Your task to perform on an android device: make emails show in primary in the gmail app Image 0: 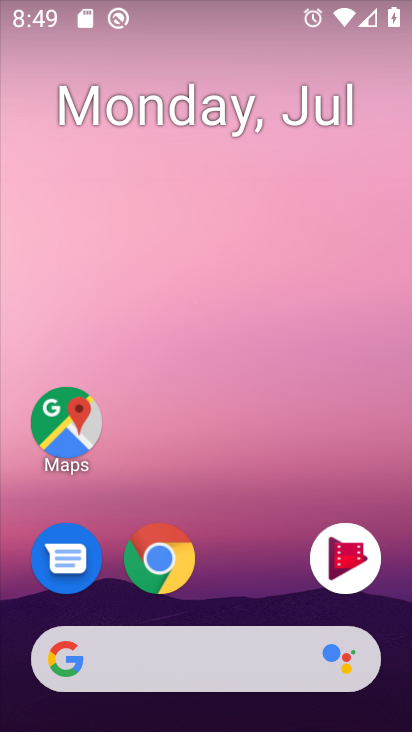
Step 0: drag from (261, 575) to (281, 130)
Your task to perform on an android device: make emails show in primary in the gmail app Image 1: 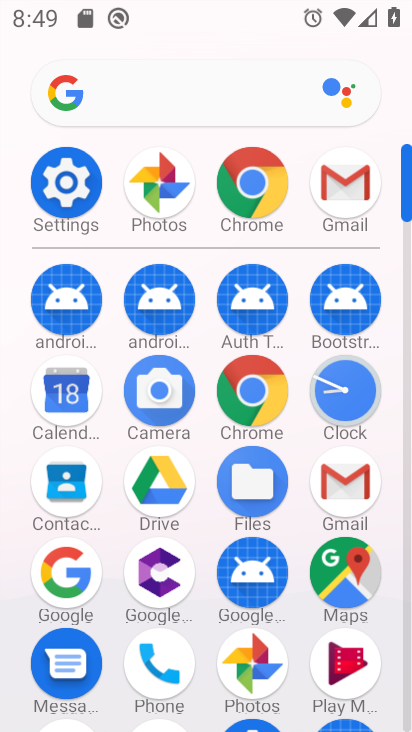
Step 1: click (354, 479)
Your task to perform on an android device: make emails show in primary in the gmail app Image 2: 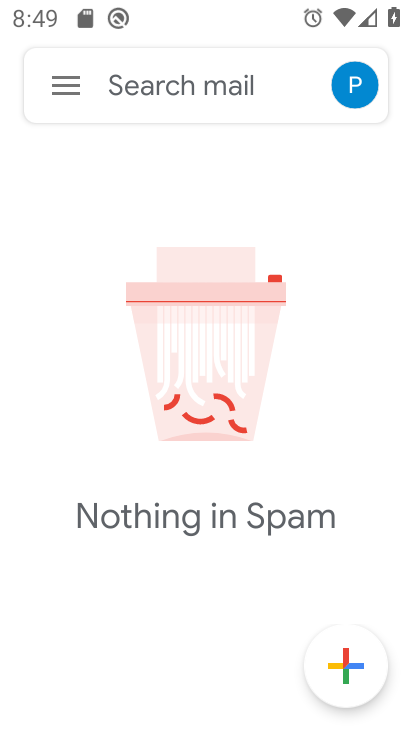
Step 2: click (66, 87)
Your task to perform on an android device: make emails show in primary in the gmail app Image 3: 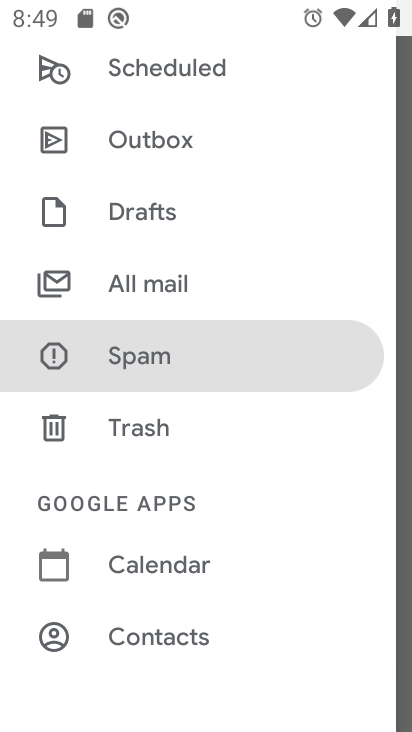
Step 3: drag from (287, 251) to (294, 304)
Your task to perform on an android device: make emails show in primary in the gmail app Image 4: 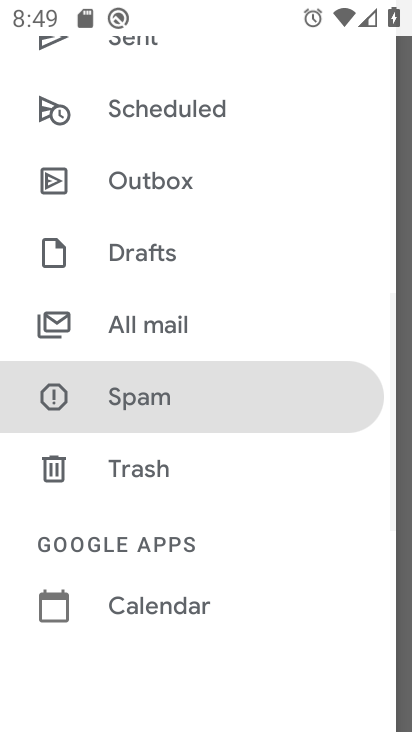
Step 4: drag from (305, 191) to (307, 302)
Your task to perform on an android device: make emails show in primary in the gmail app Image 5: 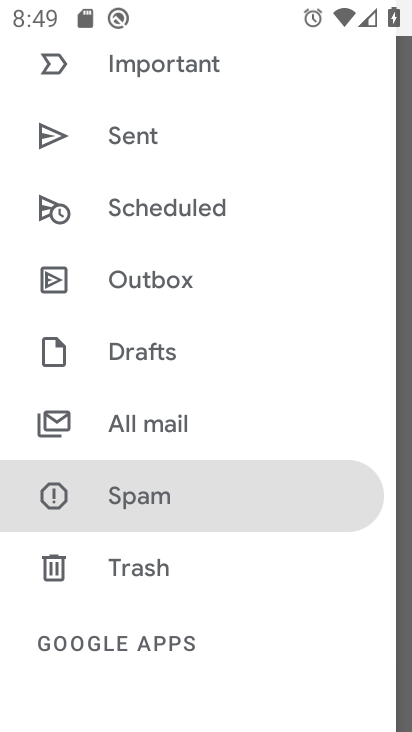
Step 5: drag from (300, 180) to (320, 324)
Your task to perform on an android device: make emails show in primary in the gmail app Image 6: 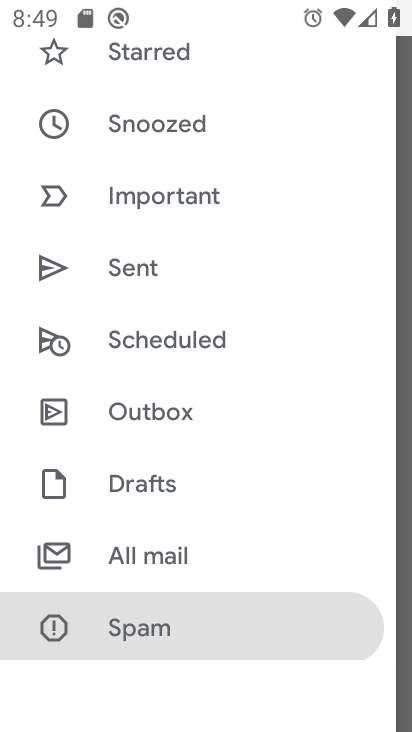
Step 6: drag from (300, 125) to (304, 271)
Your task to perform on an android device: make emails show in primary in the gmail app Image 7: 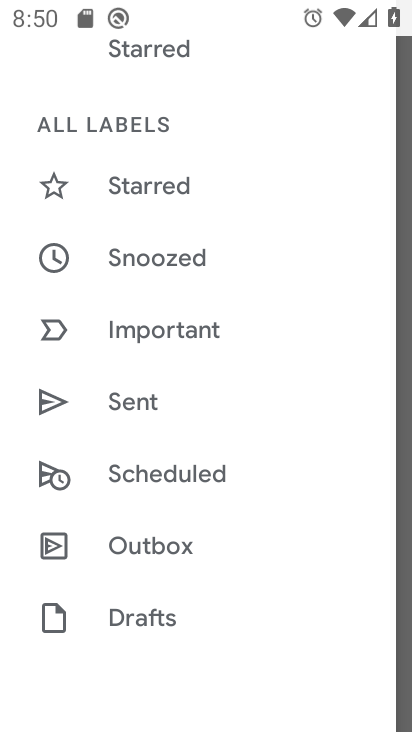
Step 7: drag from (300, 123) to (314, 279)
Your task to perform on an android device: make emails show in primary in the gmail app Image 8: 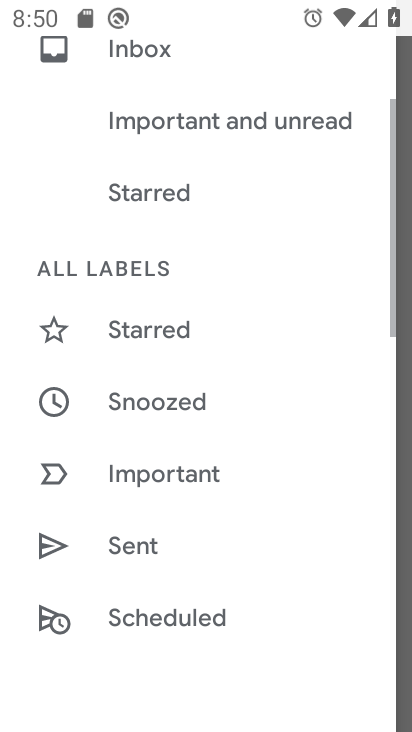
Step 8: drag from (311, 321) to (321, 228)
Your task to perform on an android device: make emails show in primary in the gmail app Image 9: 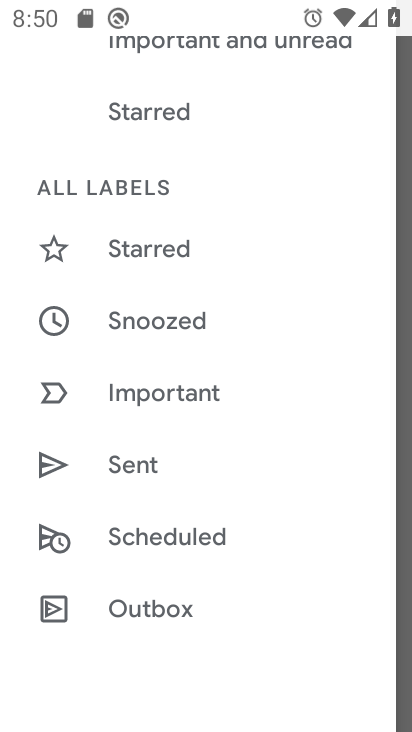
Step 9: drag from (315, 372) to (315, 186)
Your task to perform on an android device: make emails show in primary in the gmail app Image 10: 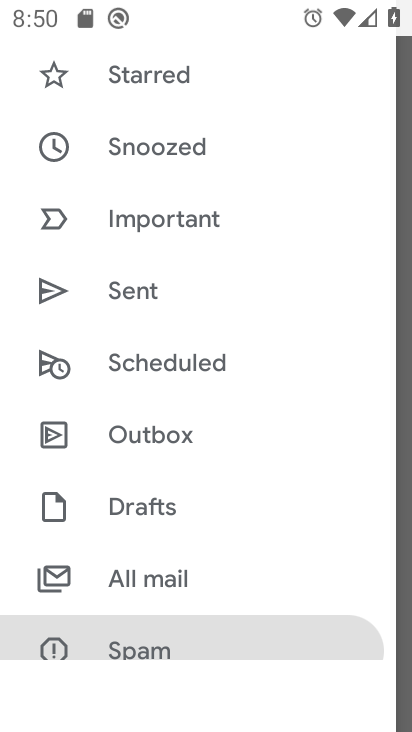
Step 10: drag from (294, 351) to (299, 219)
Your task to perform on an android device: make emails show in primary in the gmail app Image 11: 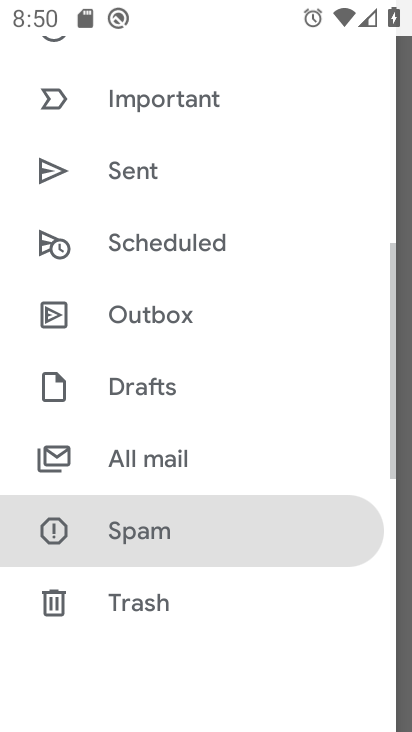
Step 11: drag from (303, 395) to (303, 279)
Your task to perform on an android device: make emails show in primary in the gmail app Image 12: 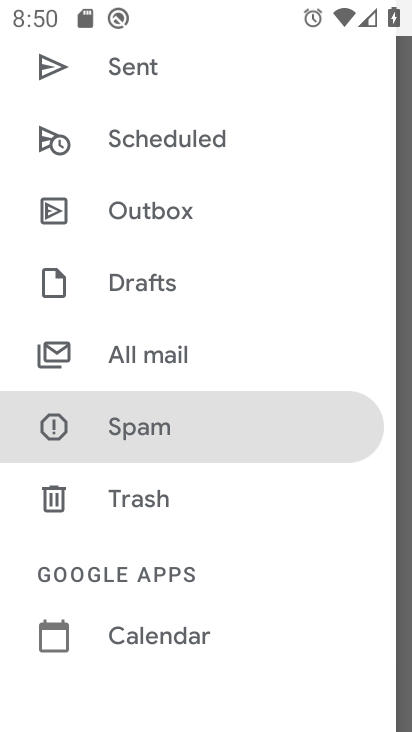
Step 12: drag from (285, 555) to (304, 408)
Your task to perform on an android device: make emails show in primary in the gmail app Image 13: 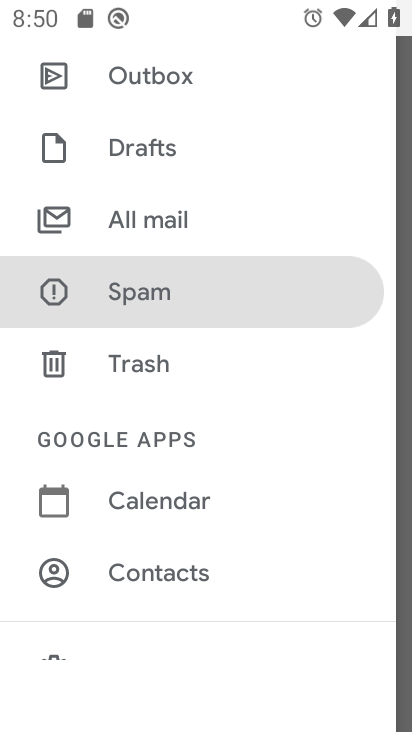
Step 13: drag from (282, 538) to (299, 416)
Your task to perform on an android device: make emails show in primary in the gmail app Image 14: 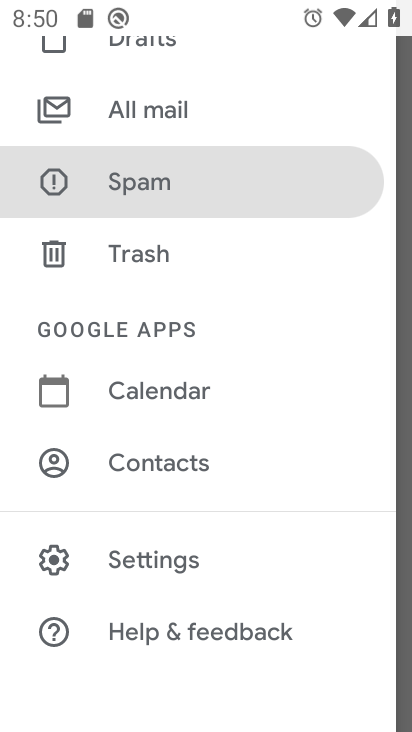
Step 14: click (221, 555)
Your task to perform on an android device: make emails show in primary in the gmail app Image 15: 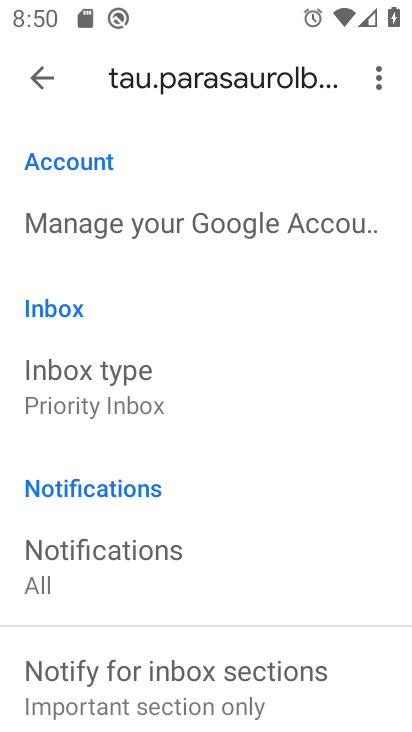
Step 15: drag from (266, 543) to (275, 437)
Your task to perform on an android device: make emails show in primary in the gmail app Image 16: 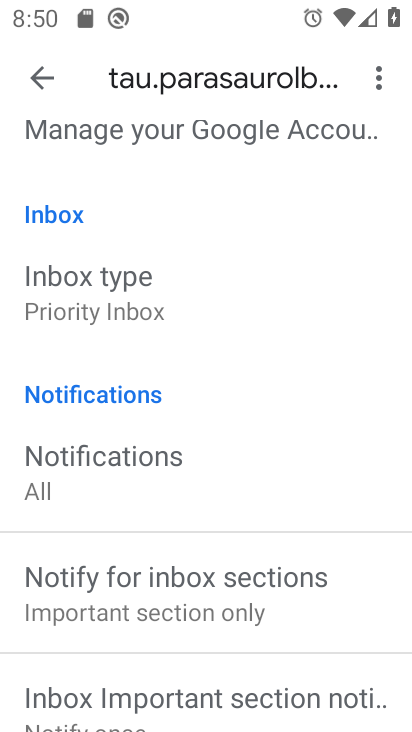
Step 16: drag from (293, 582) to (296, 474)
Your task to perform on an android device: make emails show in primary in the gmail app Image 17: 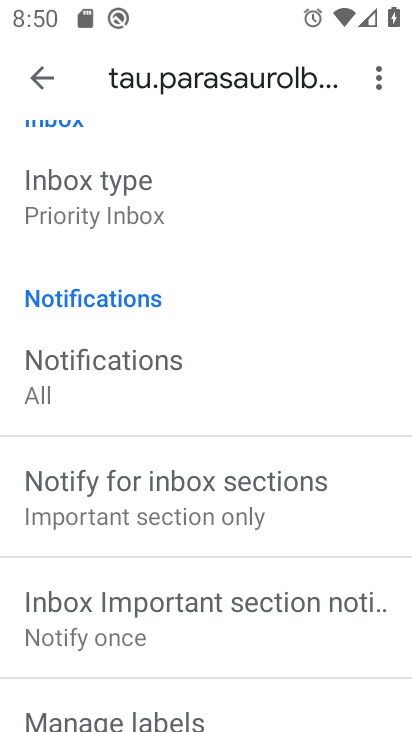
Step 17: click (171, 205)
Your task to perform on an android device: make emails show in primary in the gmail app Image 18: 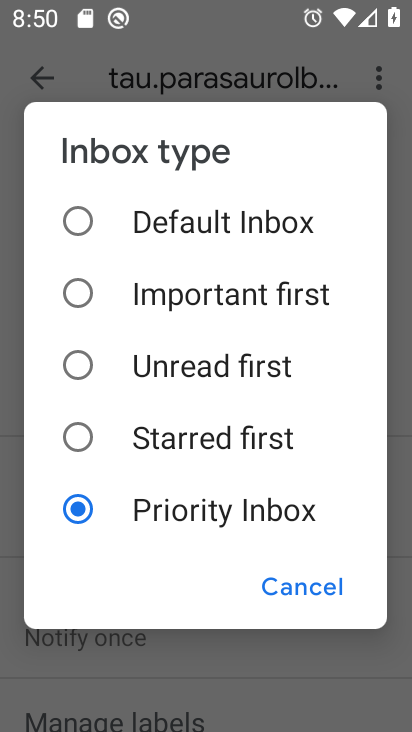
Step 18: click (159, 227)
Your task to perform on an android device: make emails show in primary in the gmail app Image 19: 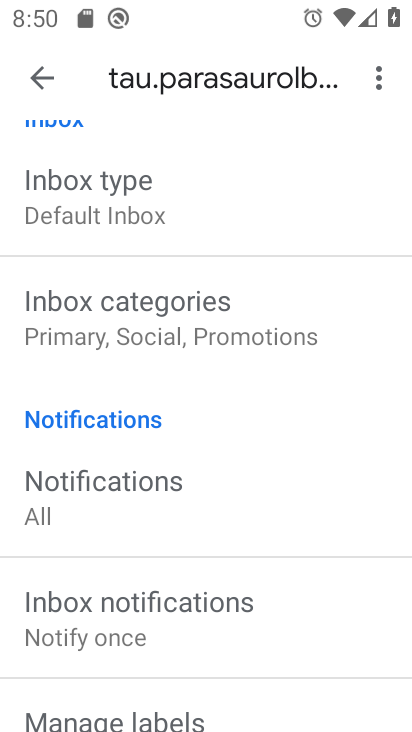
Step 19: click (198, 329)
Your task to perform on an android device: make emails show in primary in the gmail app Image 20: 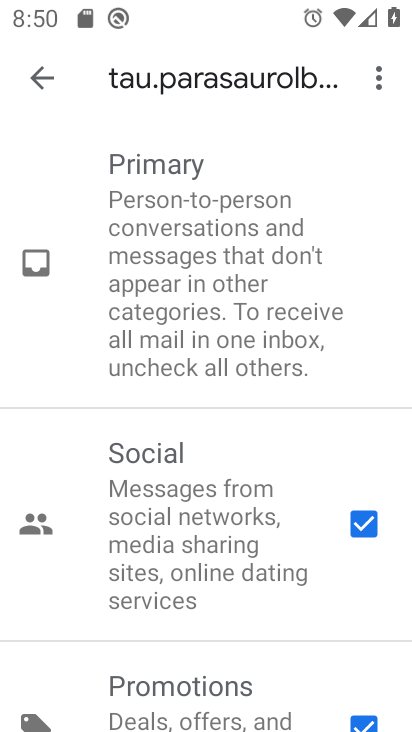
Step 20: click (361, 522)
Your task to perform on an android device: make emails show in primary in the gmail app Image 21: 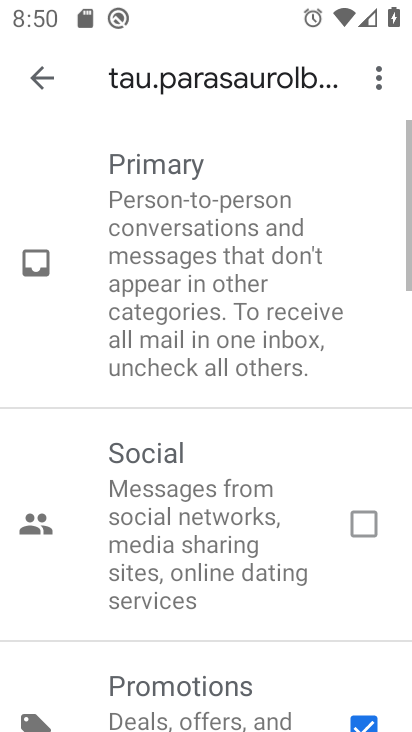
Step 21: drag from (321, 636) to (337, 470)
Your task to perform on an android device: make emails show in primary in the gmail app Image 22: 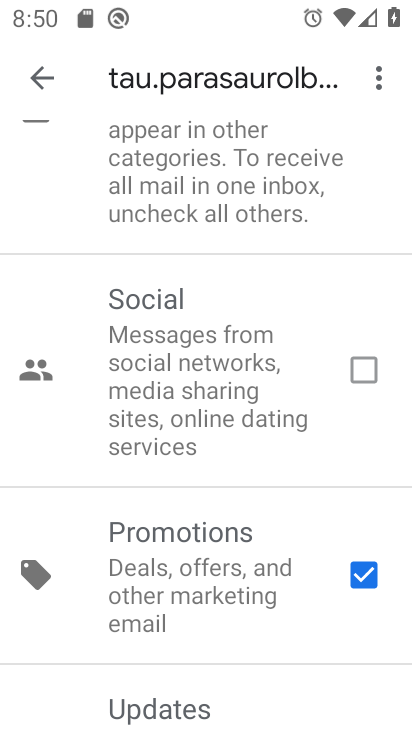
Step 22: click (368, 581)
Your task to perform on an android device: make emails show in primary in the gmail app Image 23: 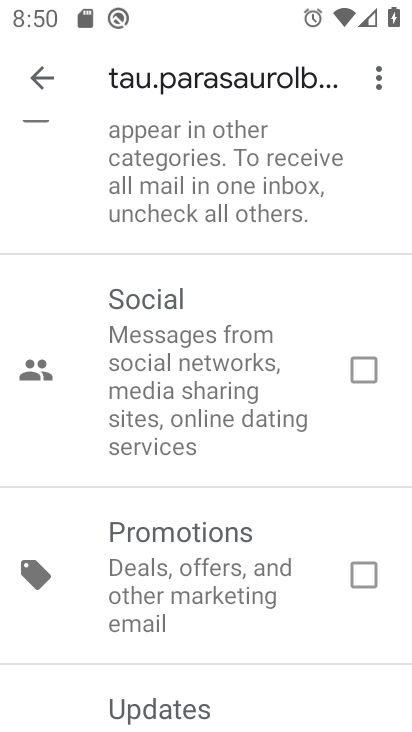
Step 23: task complete